Your task to perform on an android device: set the timer Image 0: 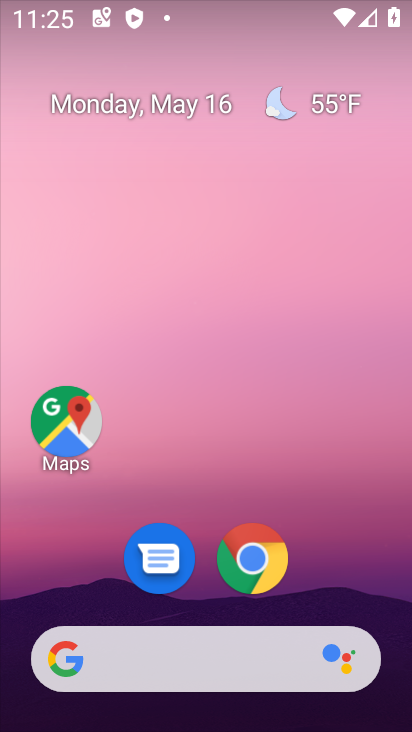
Step 0: drag from (215, 484) to (234, 132)
Your task to perform on an android device: set the timer Image 1: 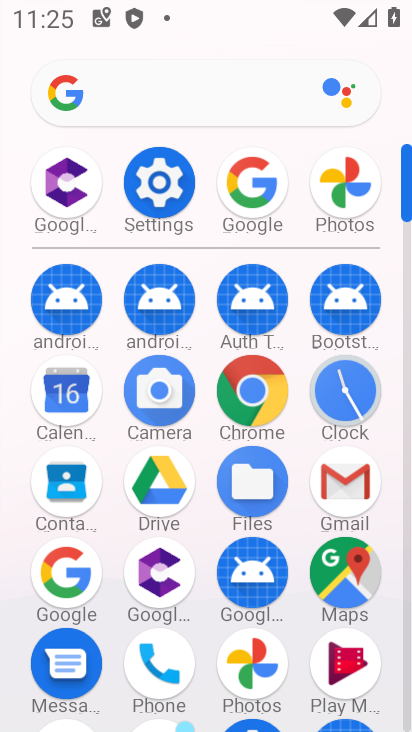
Step 1: click (347, 387)
Your task to perform on an android device: set the timer Image 2: 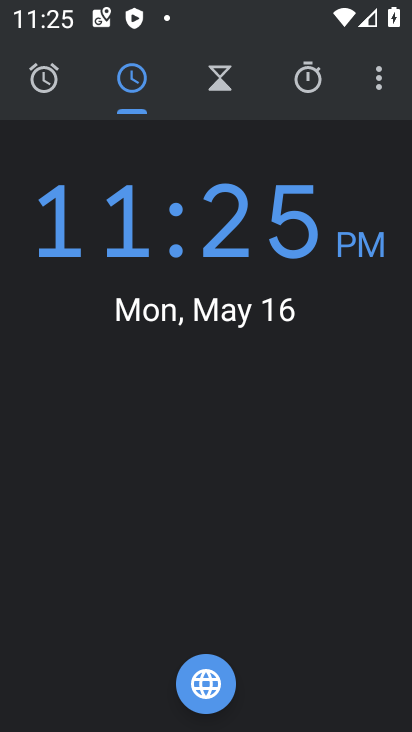
Step 2: click (229, 75)
Your task to perform on an android device: set the timer Image 3: 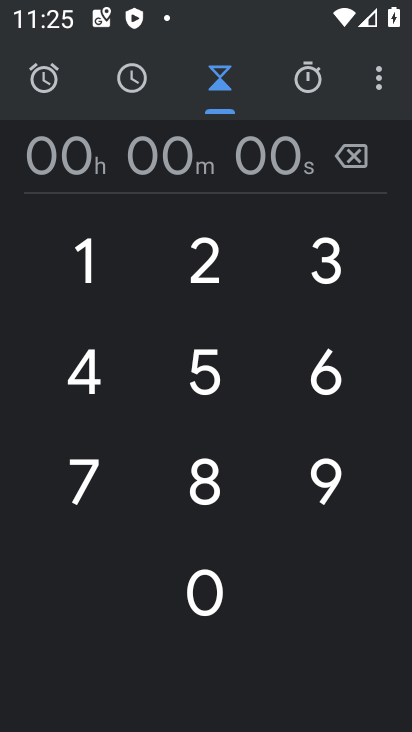
Step 3: click (206, 271)
Your task to perform on an android device: set the timer Image 4: 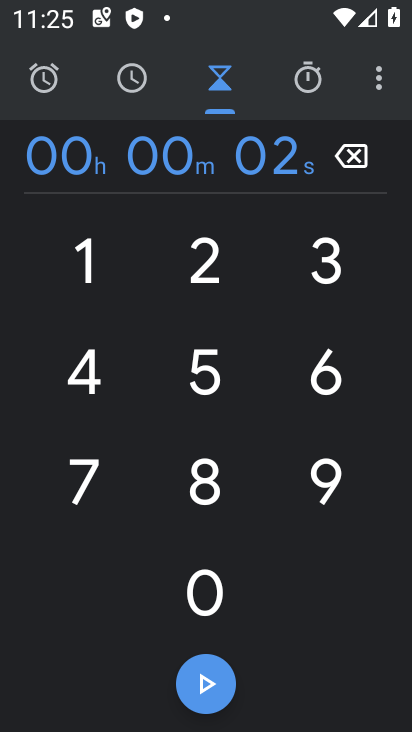
Step 4: click (206, 271)
Your task to perform on an android device: set the timer Image 5: 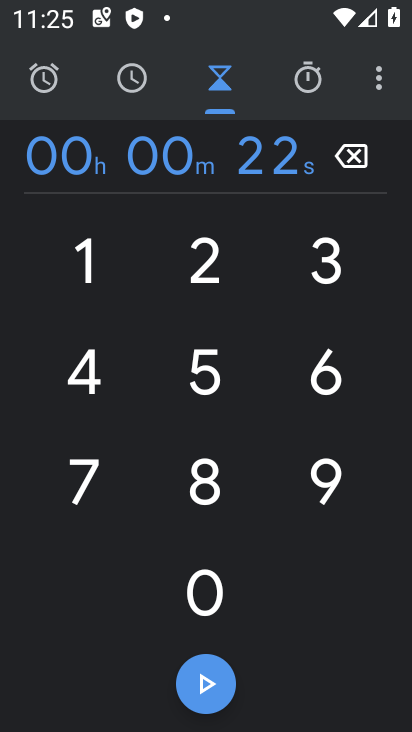
Step 5: task complete